Your task to perform on an android device: Open internet settings Image 0: 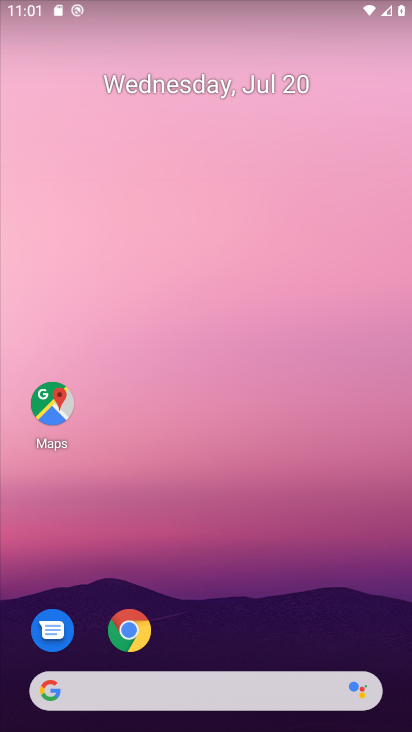
Step 0: drag from (241, 589) to (230, 220)
Your task to perform on an android device: Open internet settings Image 1: 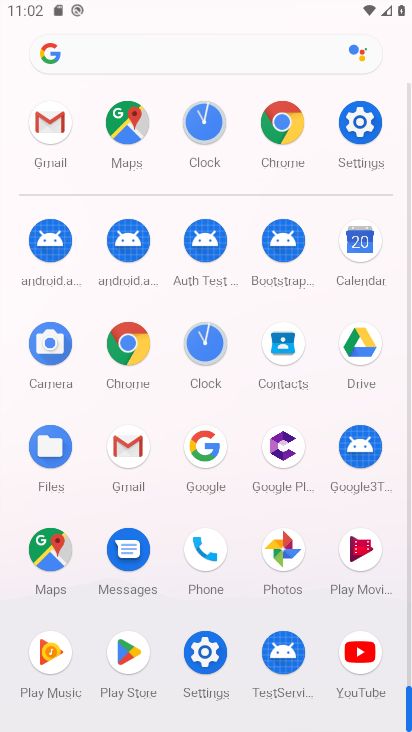
Step 1: click (240, 645)
Your task to perform on an android device: Open internet settings Image 2: 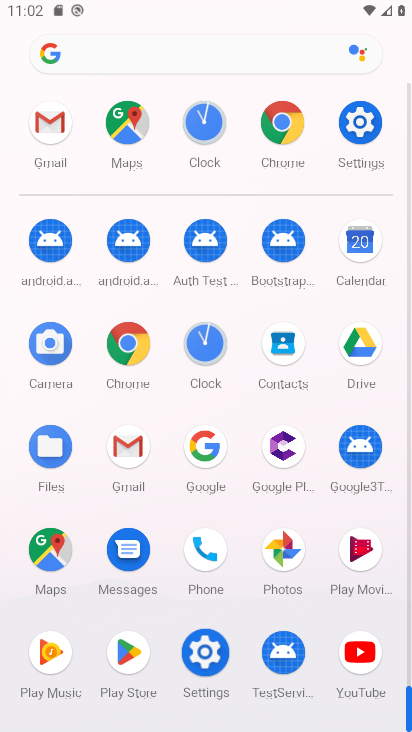
Step 2: click (214, 644)
Your task to perform on an android device: Open internet settings Image 3: 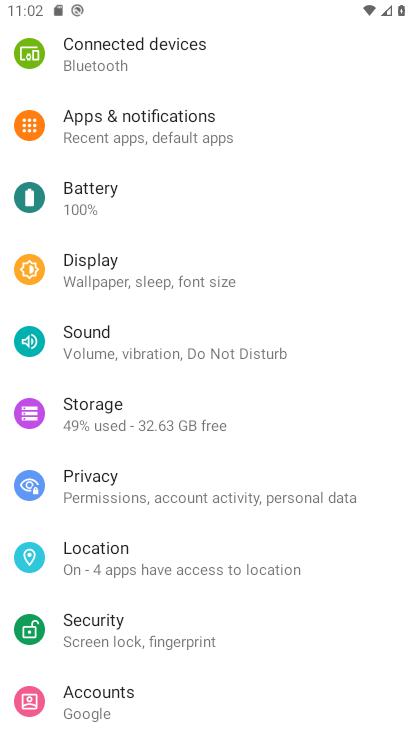
Step 3: click (206, 644)
Your task to perform on an android device: Open internet settings Image 4: 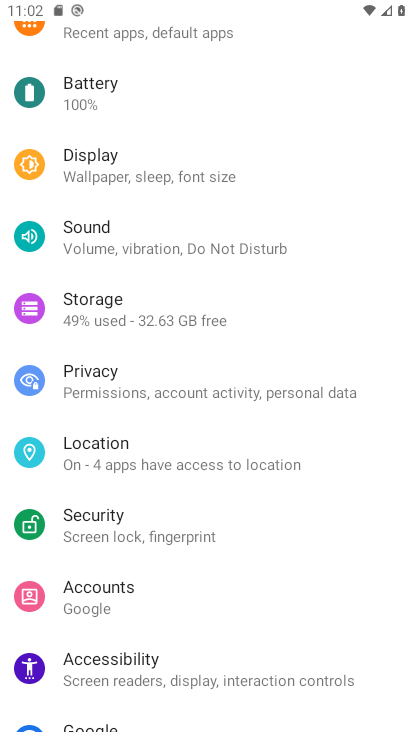
Step 4: click (204, 645)
Your task to perform on an android device: Open internet settings Image 5: 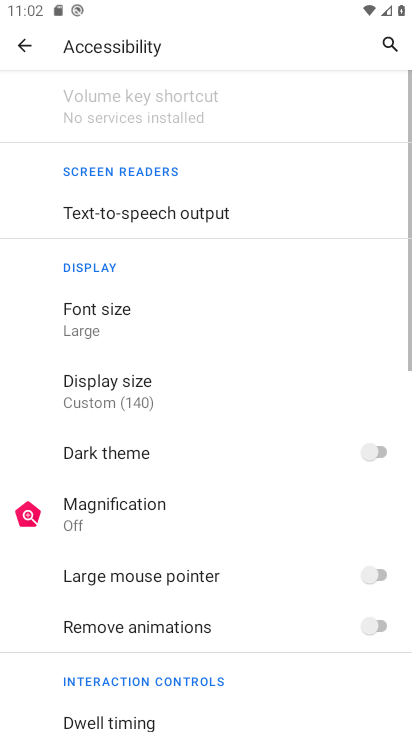
Step 5: drag from (112, 92) to (158, 441)
Your task to perform on an android device: Open internet settings Image 6: 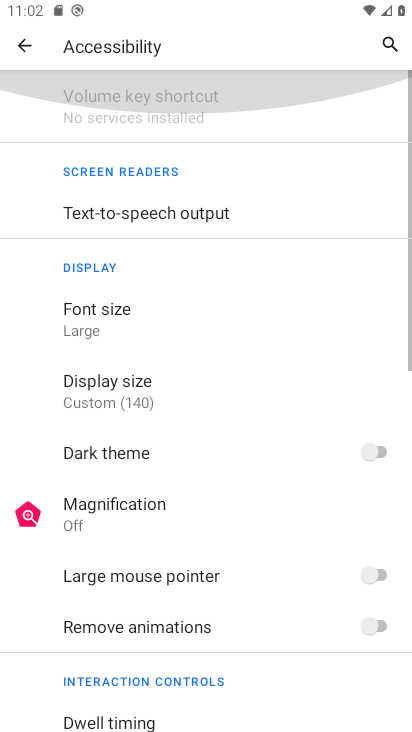
Step 6: drag from (132, 137) to (151, 265)
Your task to perform on an android device: Open internet settings Image 7: 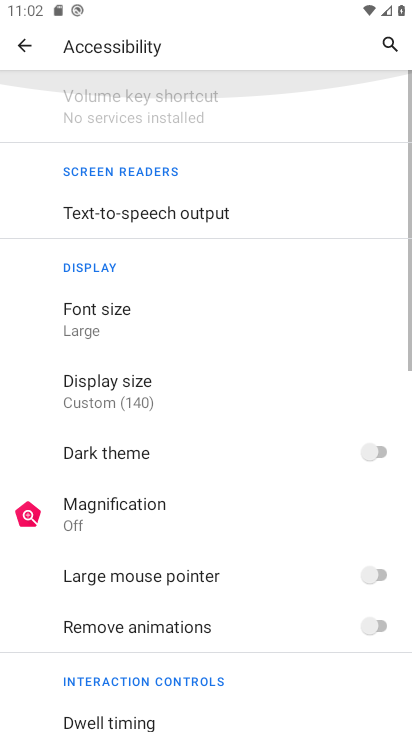
Step 7: drag from (117, 188) to (113, 428)
Your task to perform on an android device: Open internet settings Image 8: 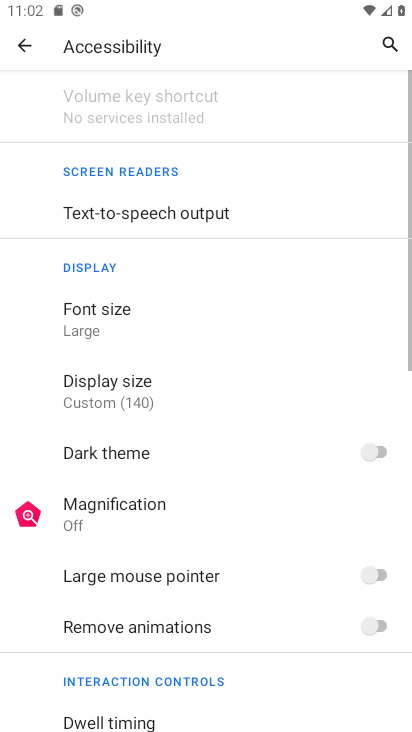
Step 8: drag from (91, 249) to (122, 373)
Your task to perform on an android device: Open internet settings Image 9: 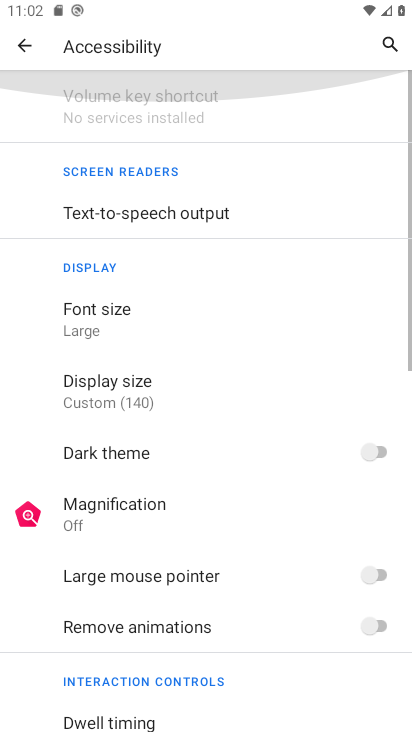
Step 9: drag from (140, 195) to (189, 470)
Your task to perform on an android device: Open internet settings Image 10: 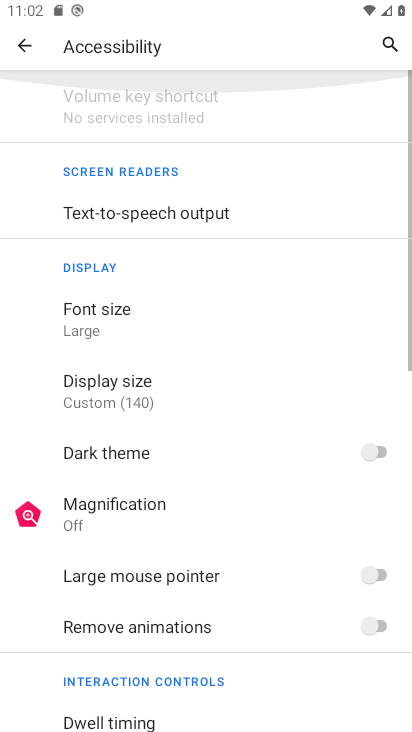
Step 10: drag from (121, 321) to (133, 498)
Your task to perform on an android device: Open internet settings Image 11: 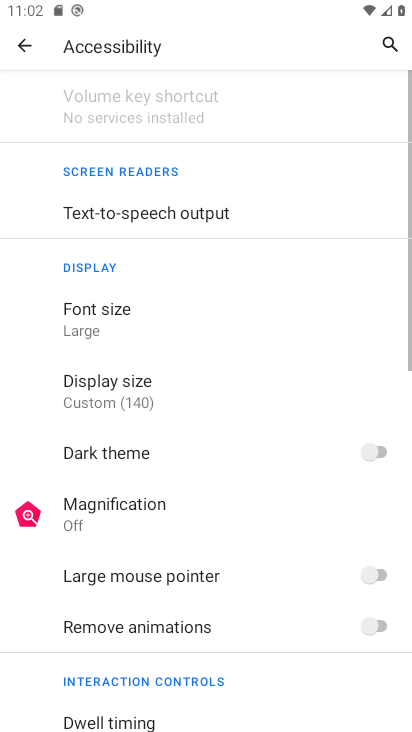
Step 11: drag from (77, 119) to (104, 402)
Your task to perform on an android device: Open internet settings Image 12: 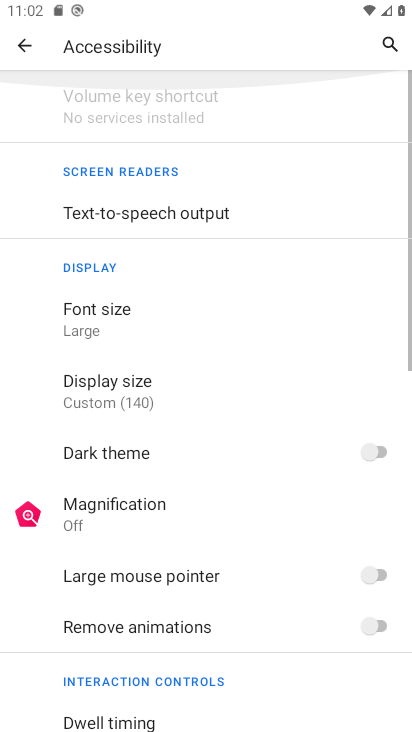
Step 12: drag from (152, 241) to (180, 378)
Your task to perform on an android device: Open internet settings Image 13: 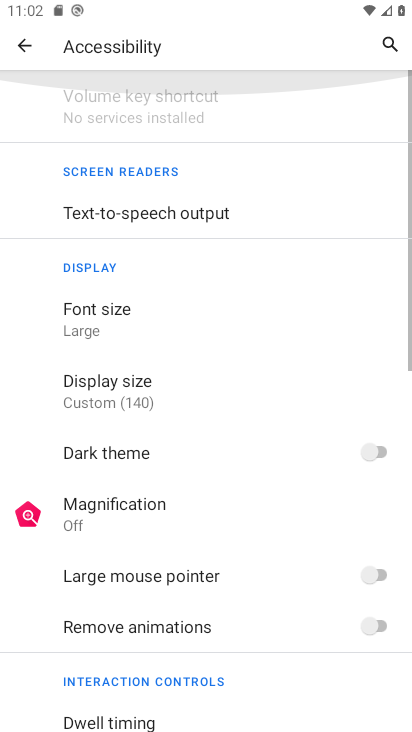
Step 13: click (25, 45)
Your task to perform on an android device: Open internet settings Image 14: 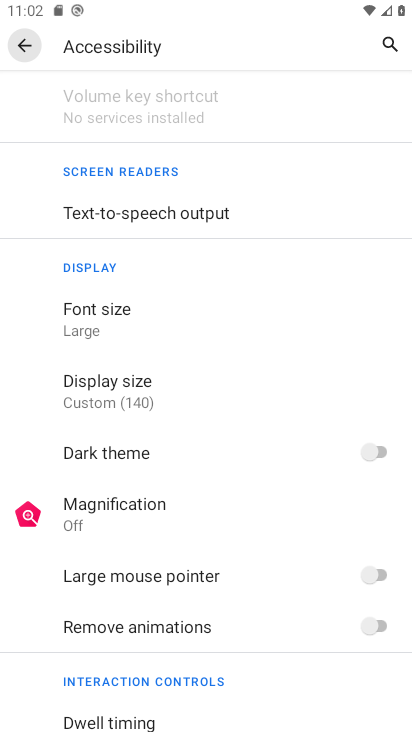
Step 14: click (23, 46)
Your task to perform on an android device: Open internet settings Image 15: 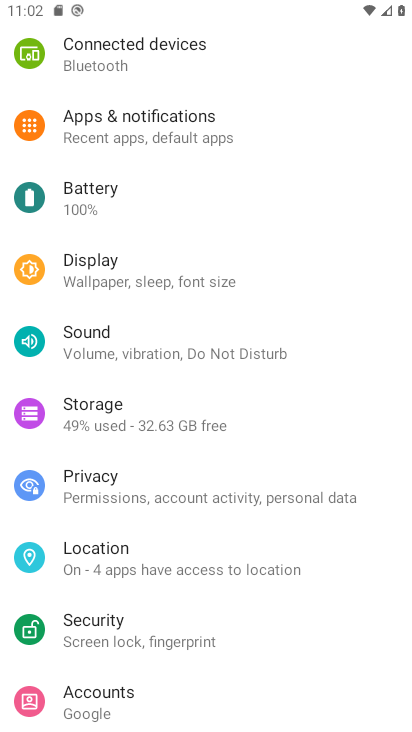
Step 15: drag from (141, 73) to (177, 423)
Your task to perform on an android device: Open internet settings Image 16: 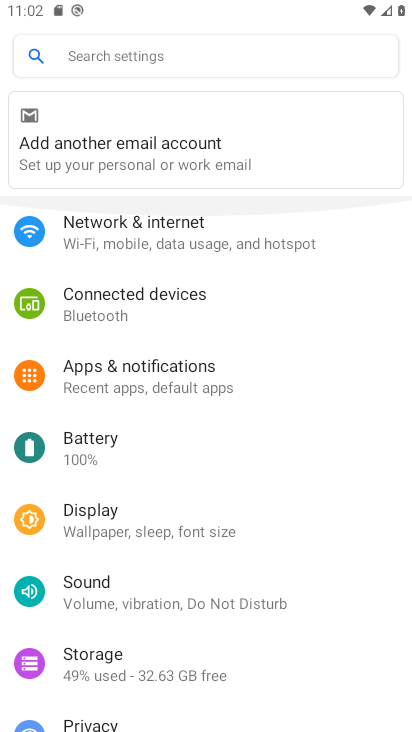
Step 16: drag from (174, 268) to (251, 558)
Your task to perform on an android device: Open internet settings Image 17: 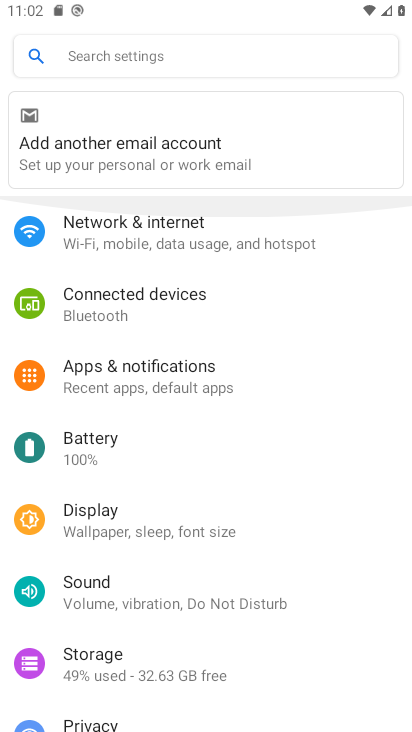
Step 17: drag from (167, 174) to (208, 507)
Your task to perform on an android device: Open internet settings Image 18: 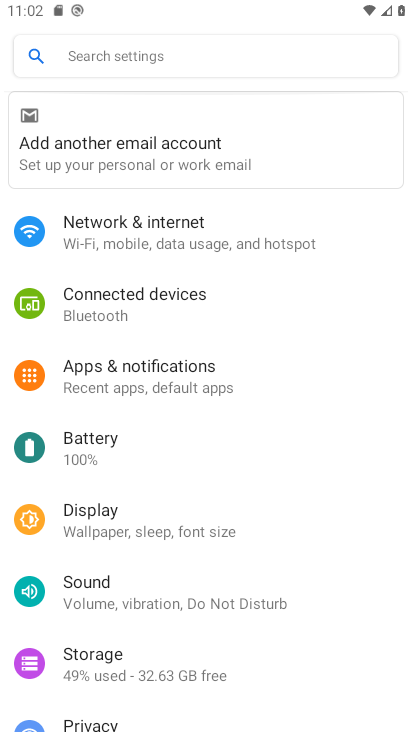
Step 18: click (142, 230)
Your task to perform on an android device: Open internet settings Image 19: 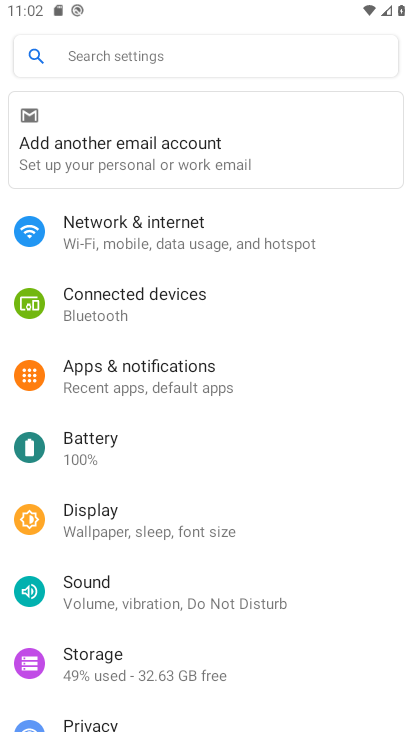
Step 19: click (143, 231)
Your task to perform on an android device: Open internet settings Image 20: 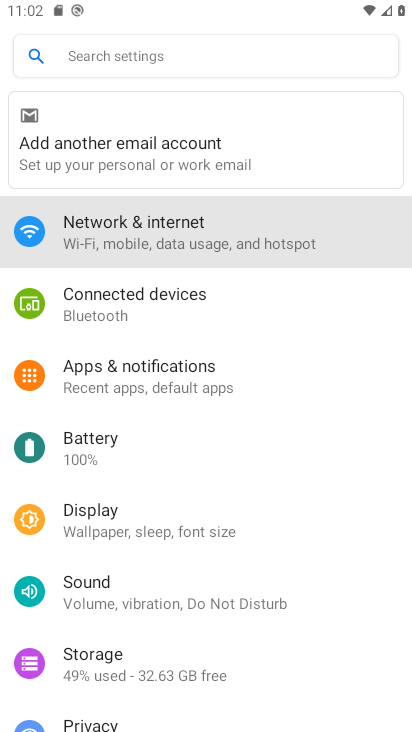
Step 20: click (203, 227)
Your task to perform on an android device: Open internet settings Image 21: 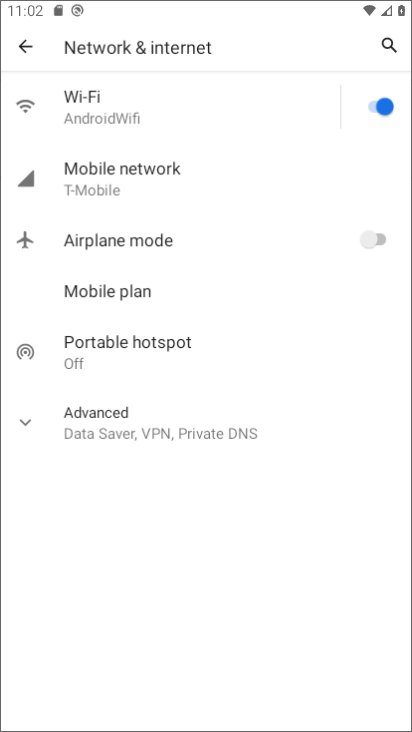
Step 21: click (203, 227)
Your task to perform on an android device: Open internet settings Image 22: 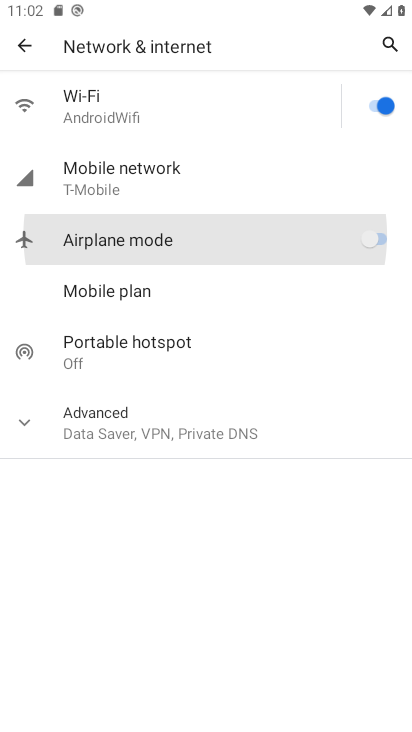
Step 22: click (204, 228)
Your task to perform on an android device: Open internet settings Image 23: 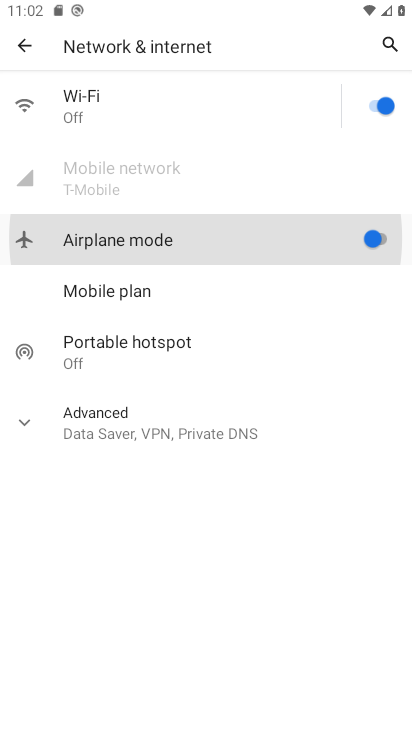
Step 23: click (209, 235)
Your task to perform on an android device: Open internet settings Image 24: 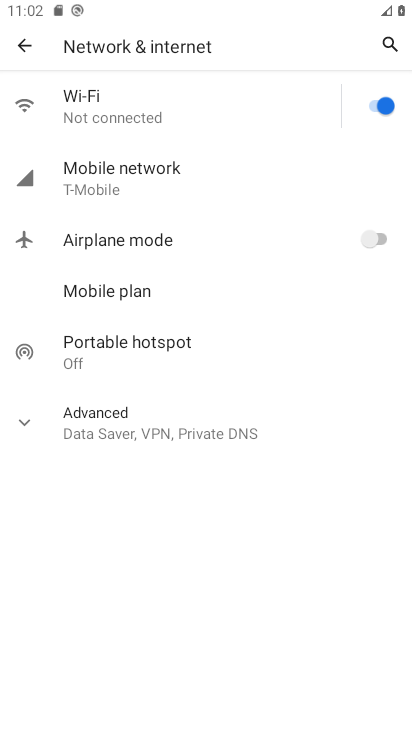
Step 24: click (380, 107)
Your task to perform on an android device: Open internet settings Image 25: 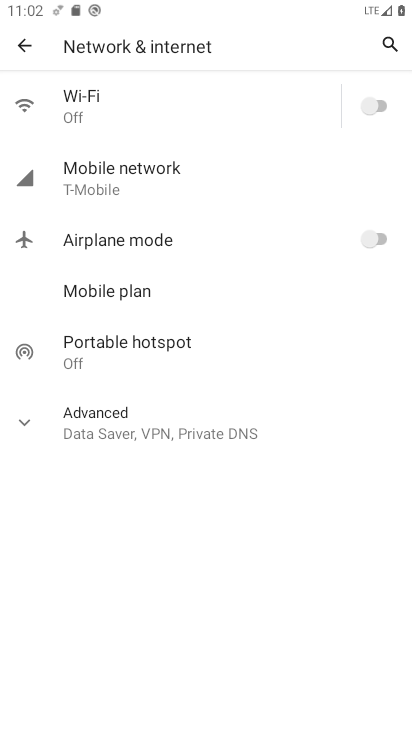
Step 25: click (379, 105)
Your task to perform on an android device: Open internet settings Image 26: 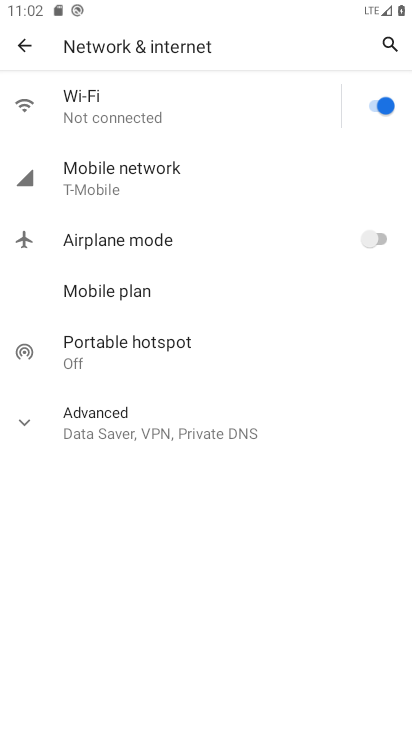
Step 26: task complete